Your task to perform on an android device: Add "amazon basics triple a" to the cart on ebay, then select checkout. Image 0: 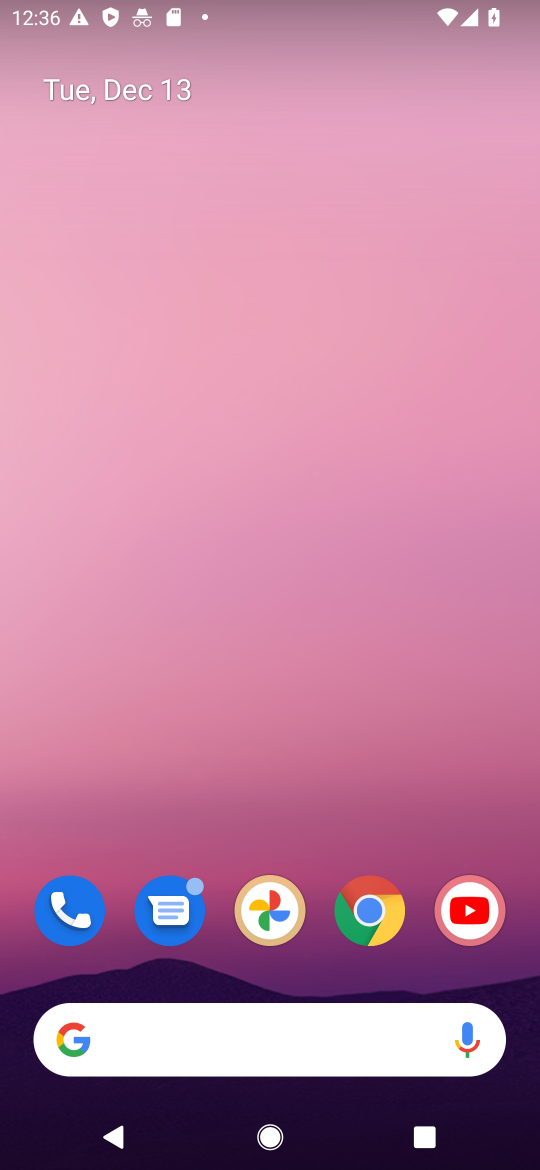
Step 0: click (370, 908)
Your task to perform on an android device: Add "amazon basics triple a" to the cart on ebay, then select checkout. Image 1: 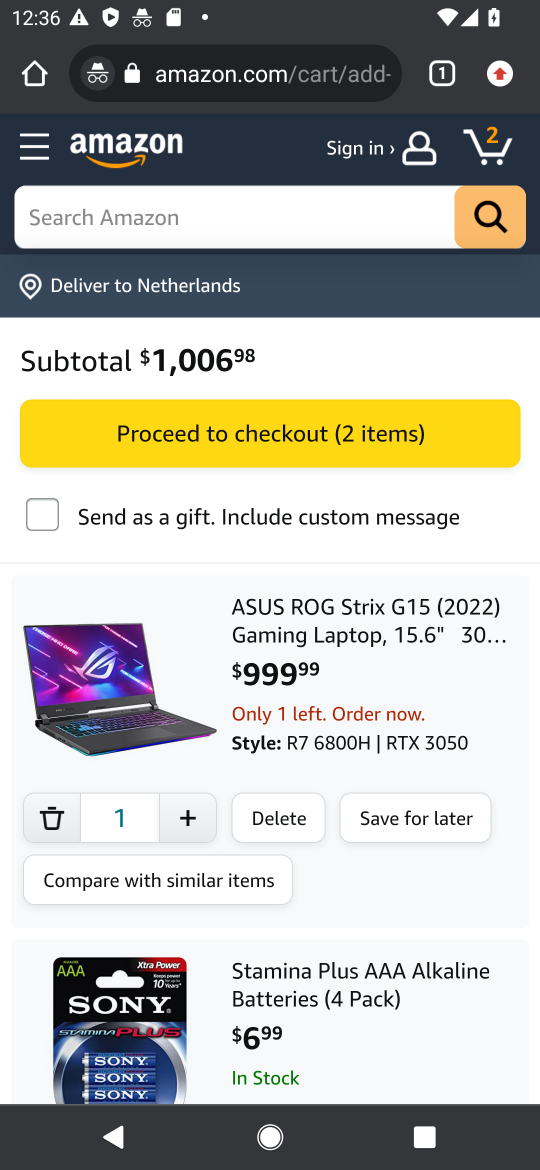
Step 1: click (237, 71)
Your task to perform on an android device: Add "amazon basics triple a" to the cart on ebay, then select checkout. Image 2: 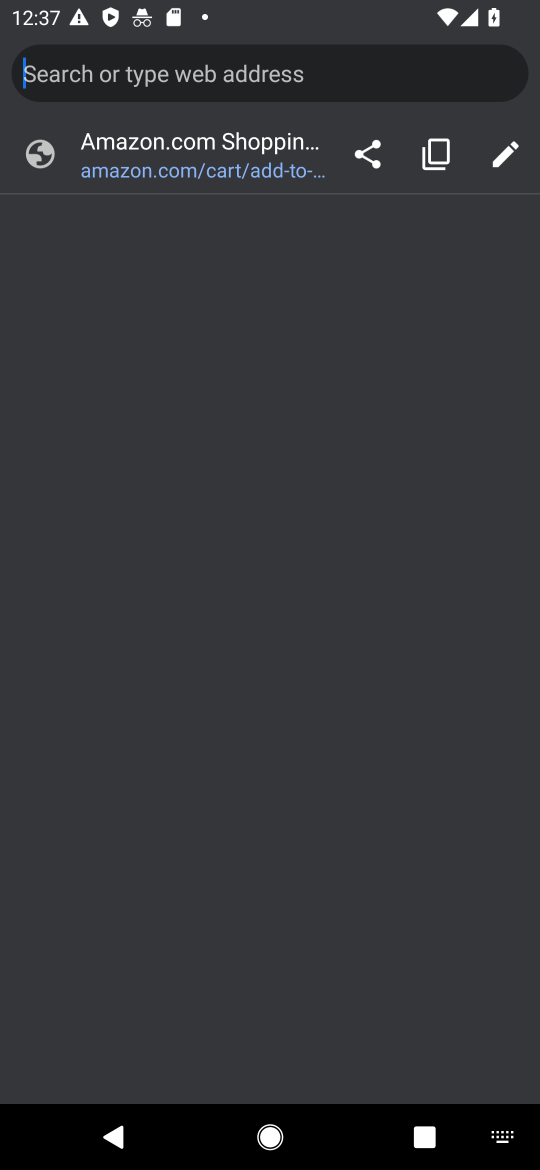
Step 2: type "EBAY"
Your task to perform on an android device: Add "amazon basics triple a" to the cart on ebay, then select checkout. Image 3: 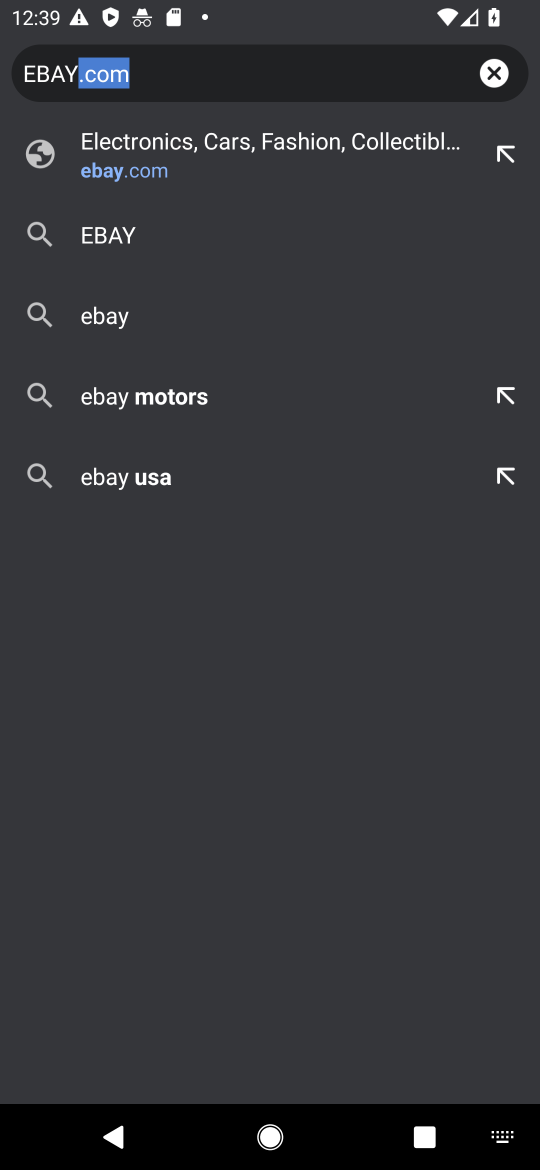
Step 3: task complete